Your task to perform on an android device: set an alarm Image 0: 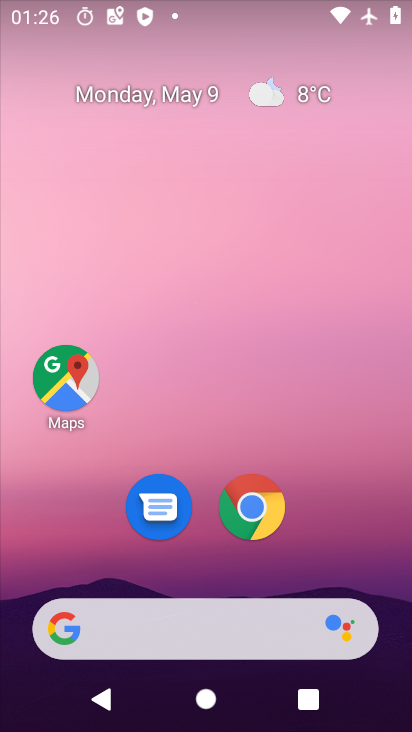
Step 0: drag from (226, 728) to (226, 111)
Your task to perform on an android device: set an alarm Image 1: 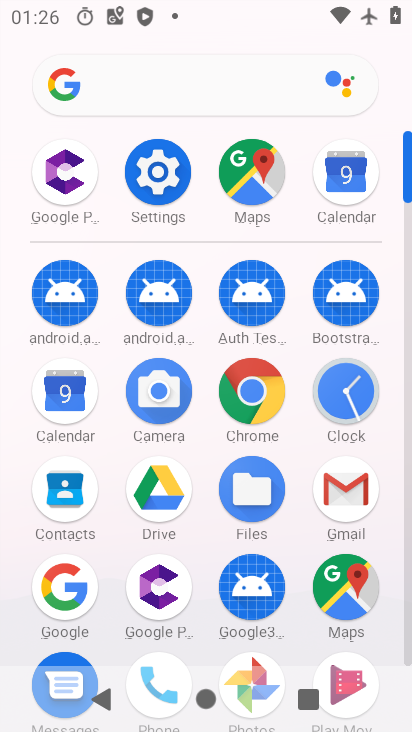
Step 1: click (160, 168)
Your task to perform on an android device: set an alarm Image 2: 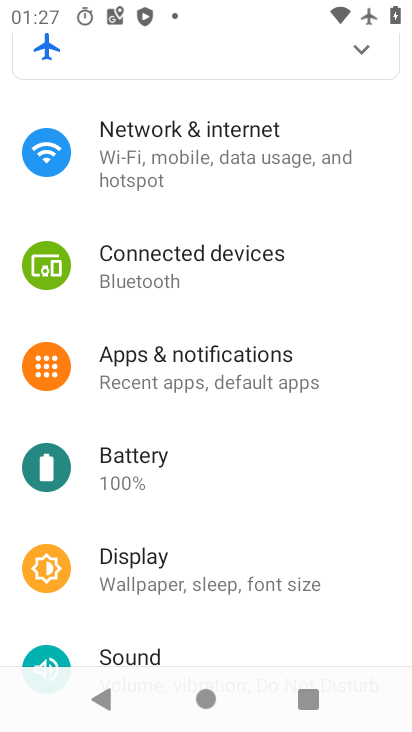
Step 2: press home button
Your task to perform on an android device: set an alarm Image 3: 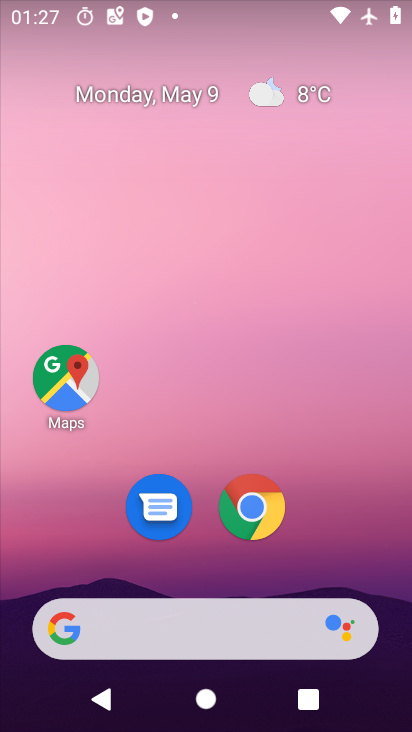
Step 3: drag from (224, 718) to (224, 189)
Your task to perform on an android device: set an alarm Image 4: 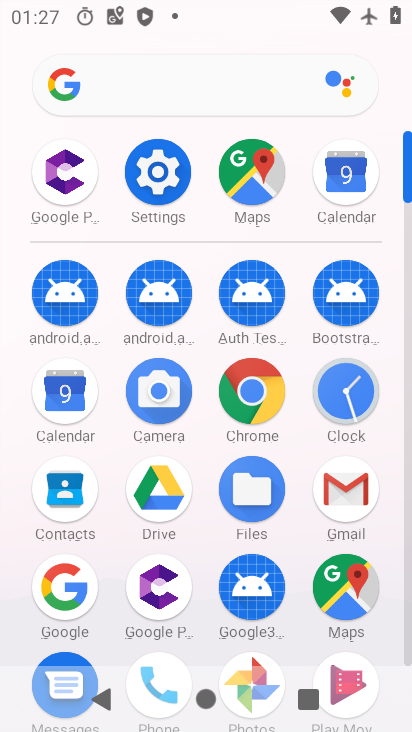
Step 4: click (338, 395)
Your task to perform on an android device: set an alarm Image 5: 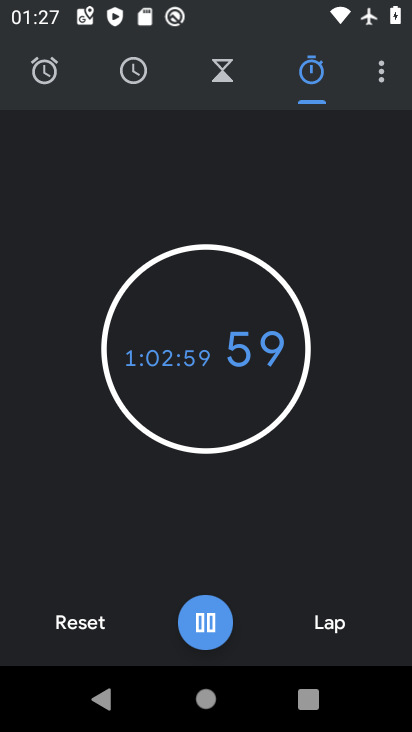
Step 5: click (43, 70)
Your task to perform on an android device: set an alarm Image 6: 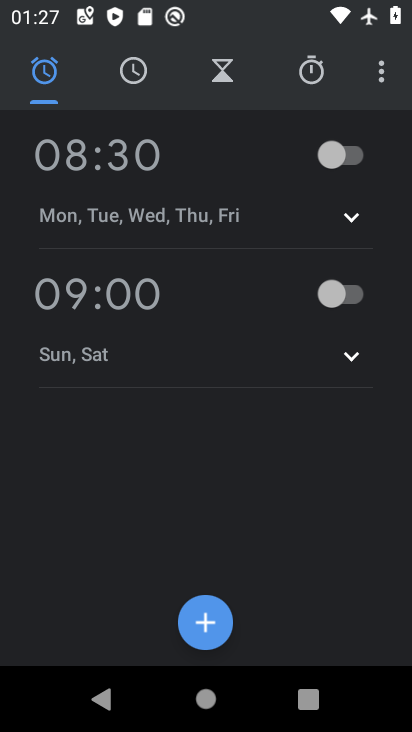
Step 6: click (205, 617)
Your task to perform on an android device: set an alarm Image 7: 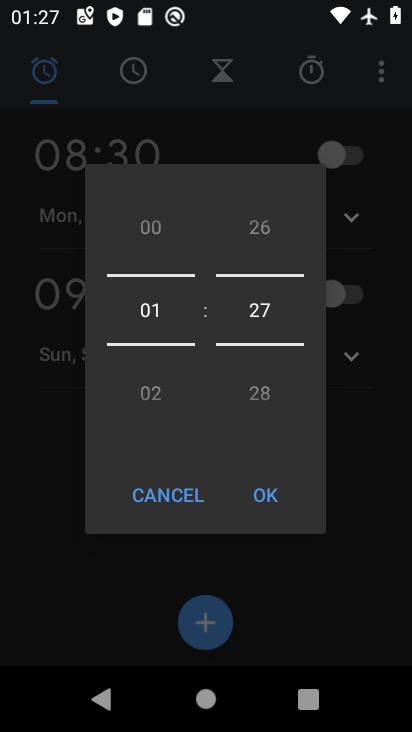
Step 7: drag from (258, 396) to (259, 200)
Your task to perform on an android device: set an alarm Image 8: 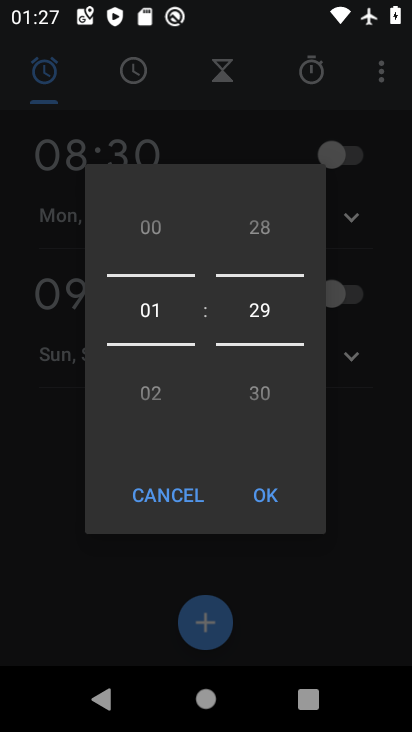
Step 8: drag from (148, 393) to (149, 260)
Your task to perform on an android device: set an alarm Image 9: 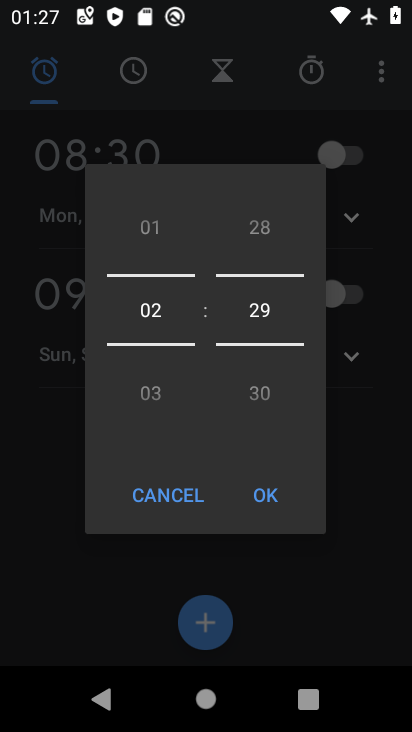
Step 9: drag from (144, 399) to (147, 283)
Your task to perform on an android device: set an alarm Image 10: 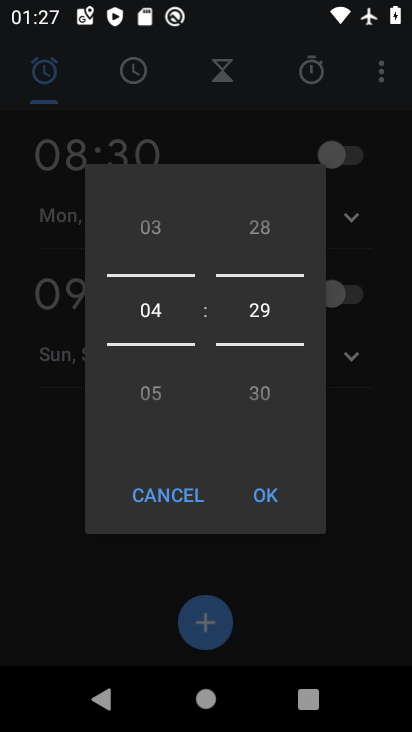
Step 10: click (263, 491)
Your task to perform on an android device: set an alarm Image 11: 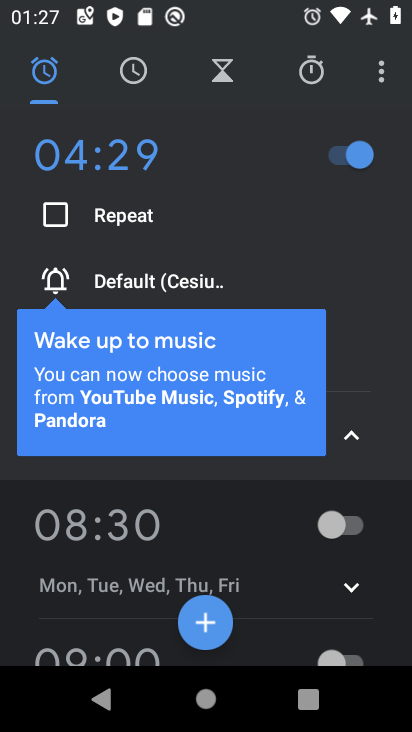
Step 11: task complete